Your task to perform on an android device: Open the map Image 0: 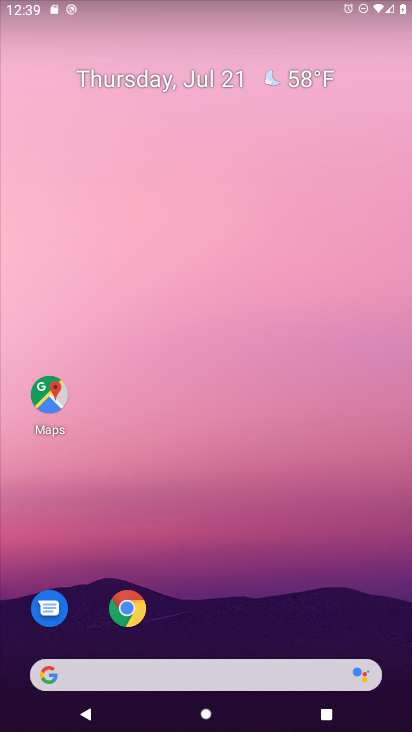
Step 0: press home button
Your task to perform on an android device: Open the map Image 1: 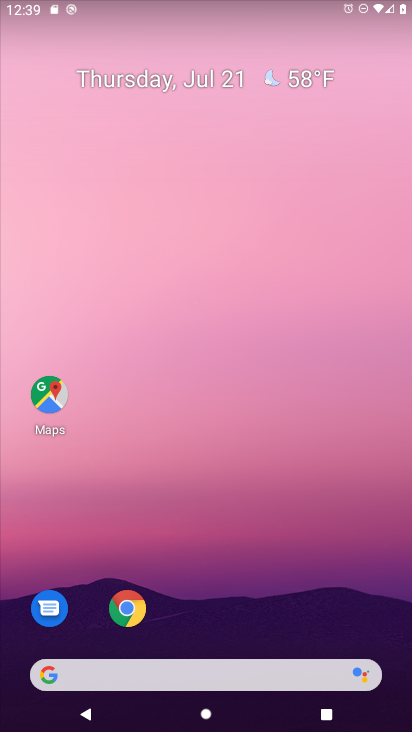
Step 1: drag from (226, 637) to (249, 16)
Your task to perform on an android device: Open the map Image 2: 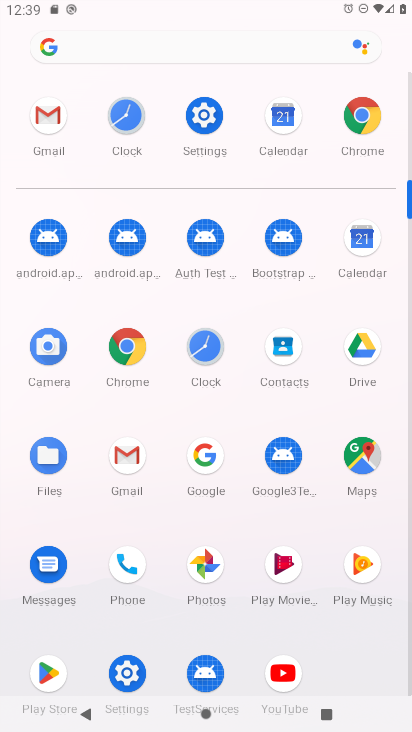
Step 2: click (360, 463)
Your task to perform on an android device: Open the map Image 3: 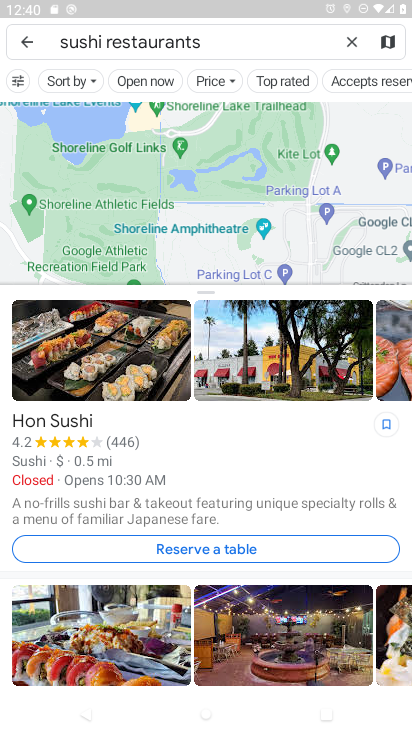
Step 3: click (349, 44)
Your task to perform on an android device: Open the map Image 4: 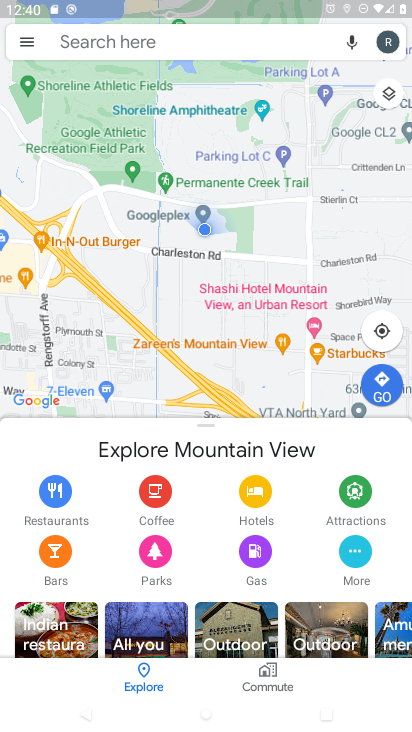
Step 4: task complete